Your task to perform on an android device: manage bookmarks in the chrome app Image 0: 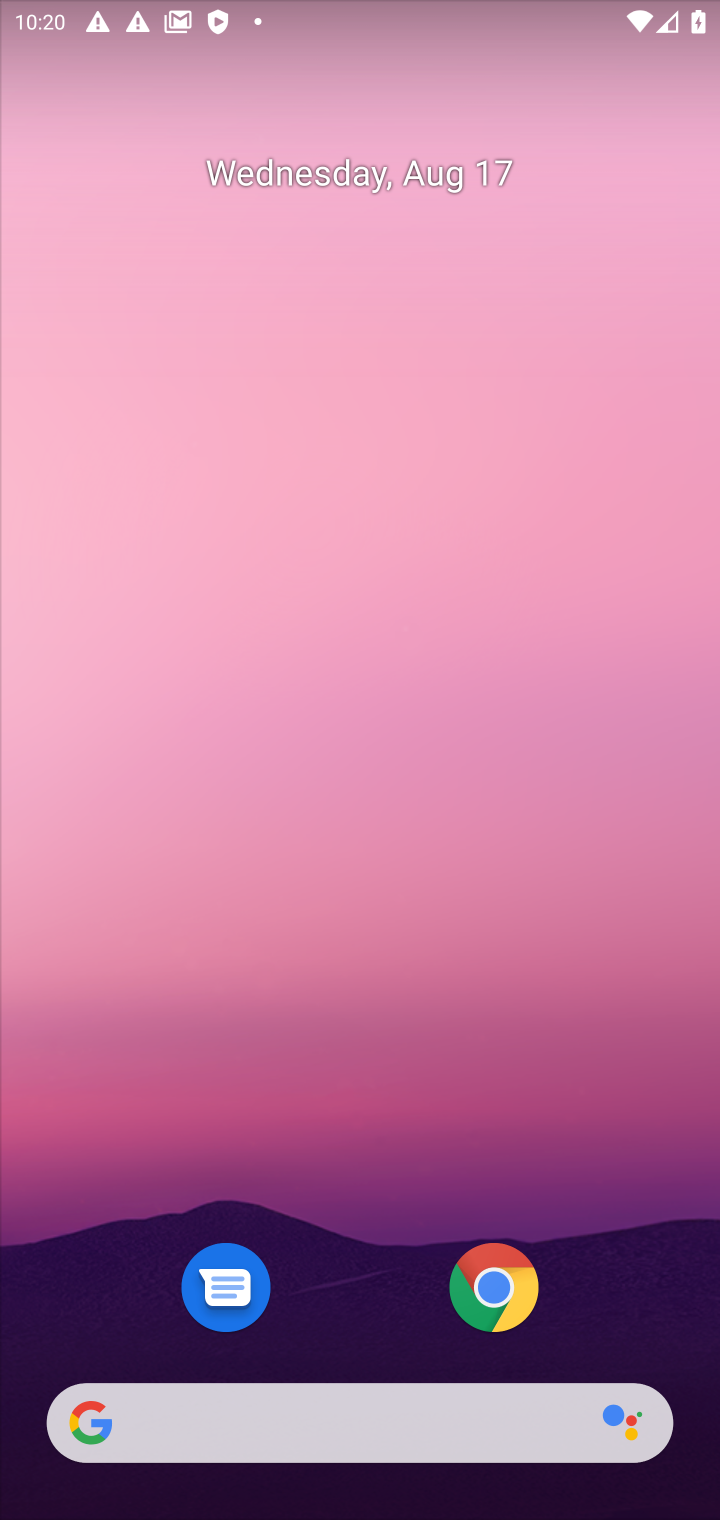
Step 0: press home button
Your task to perform on an android device: manage bookmarks in the chrome app Image 1: 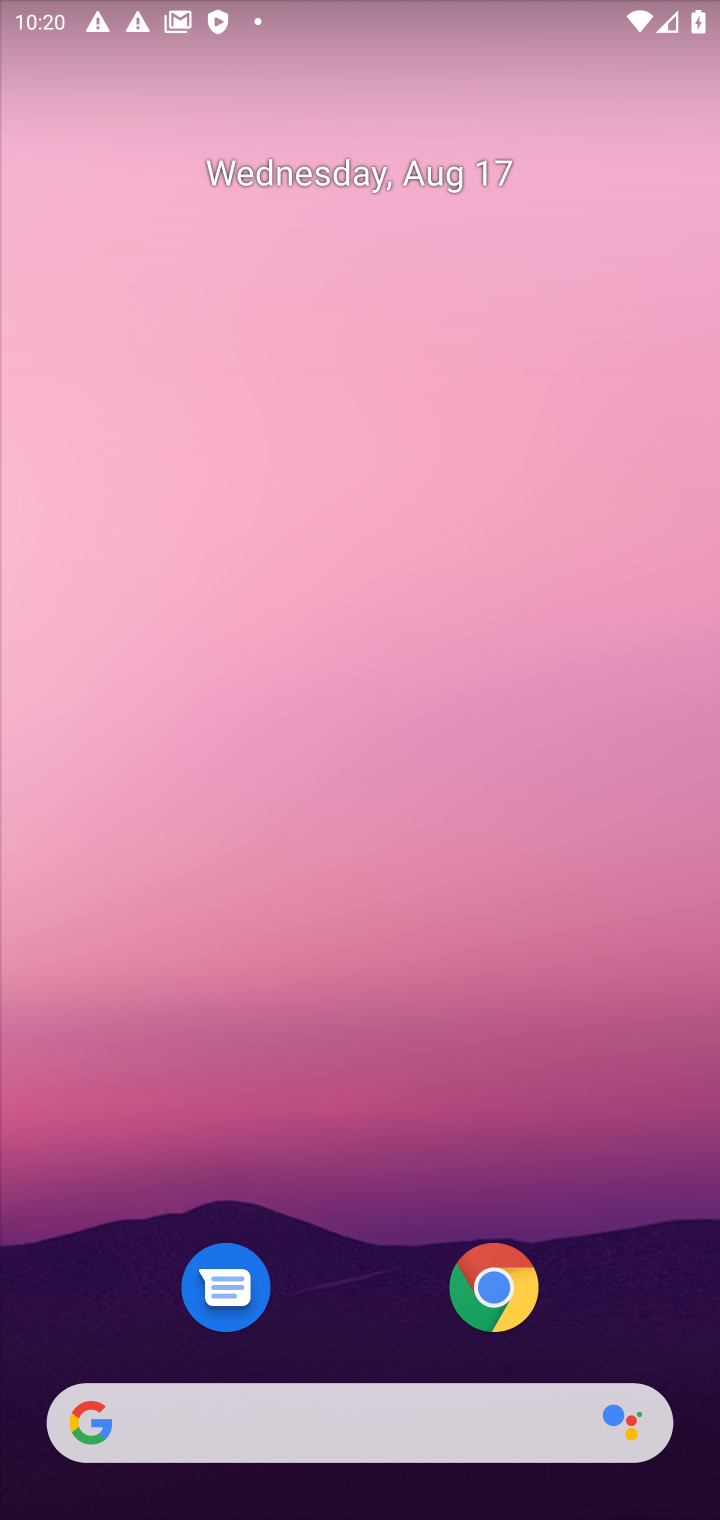
Step 1: click (486, 1266)
Your task to perform on an android device: manage bookmarks in the chrome app Image 2: 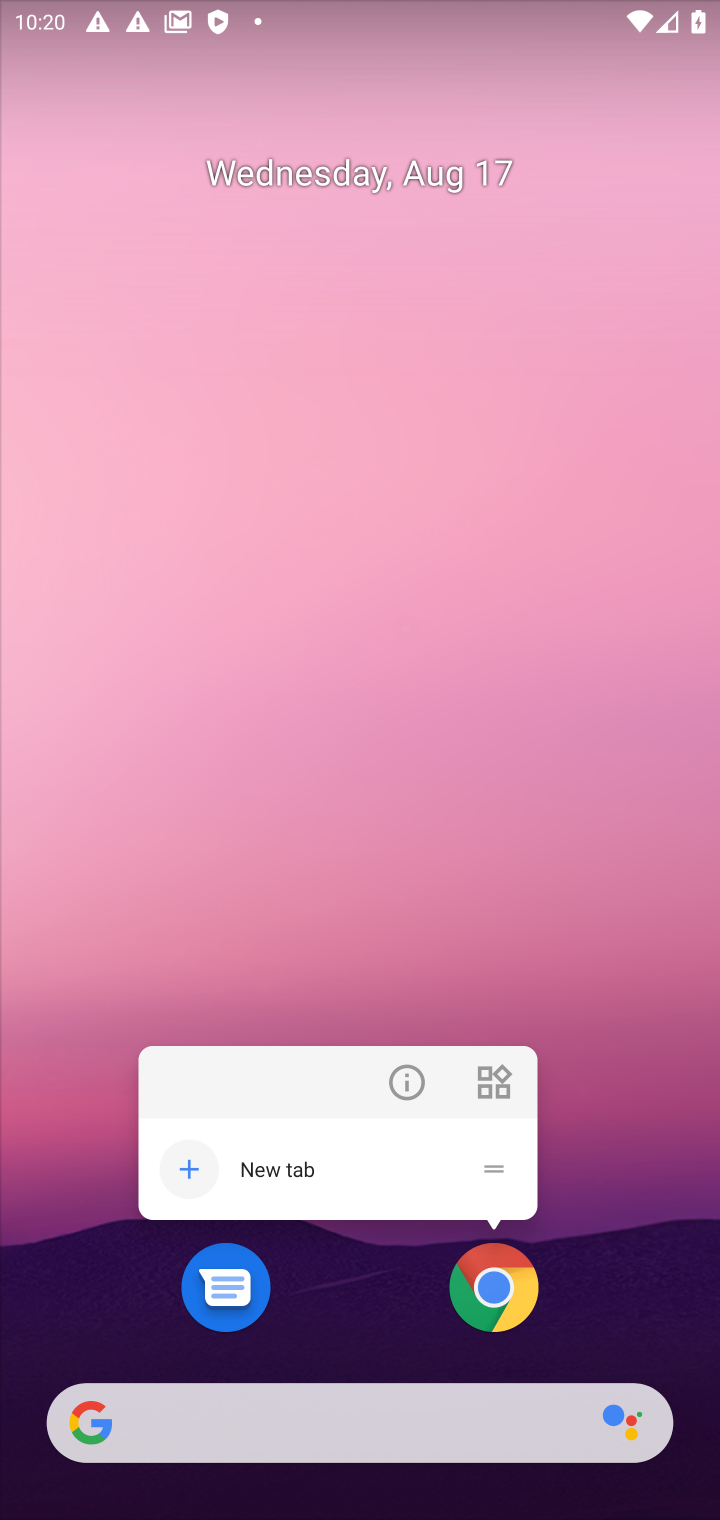
Step 2: click (512, 1319)
Your task to perform on an android device: manage bookmarks in the chrome app Image 3: 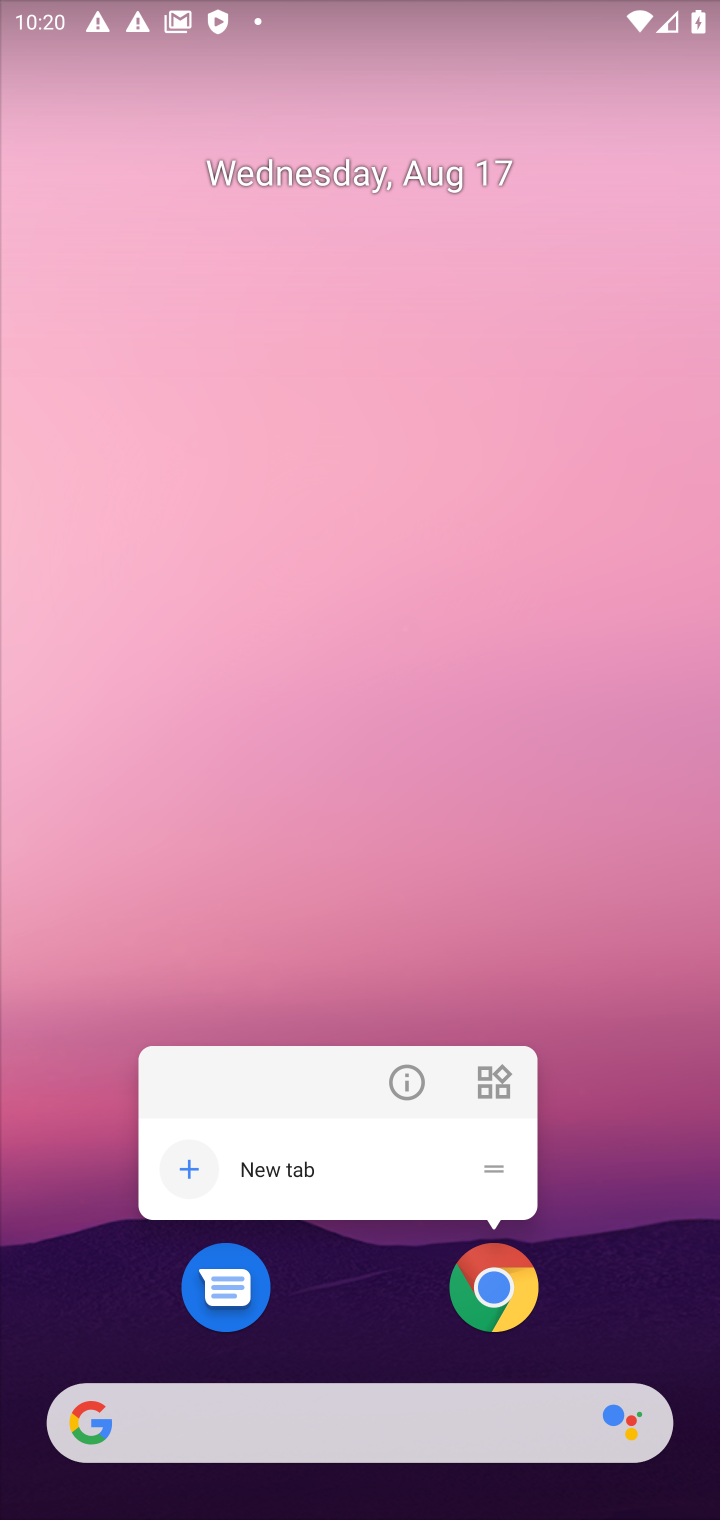
Step 3: click (500, 1301)
Your task to perform on an android device: manage bookmarks in the chrome app Image 4: 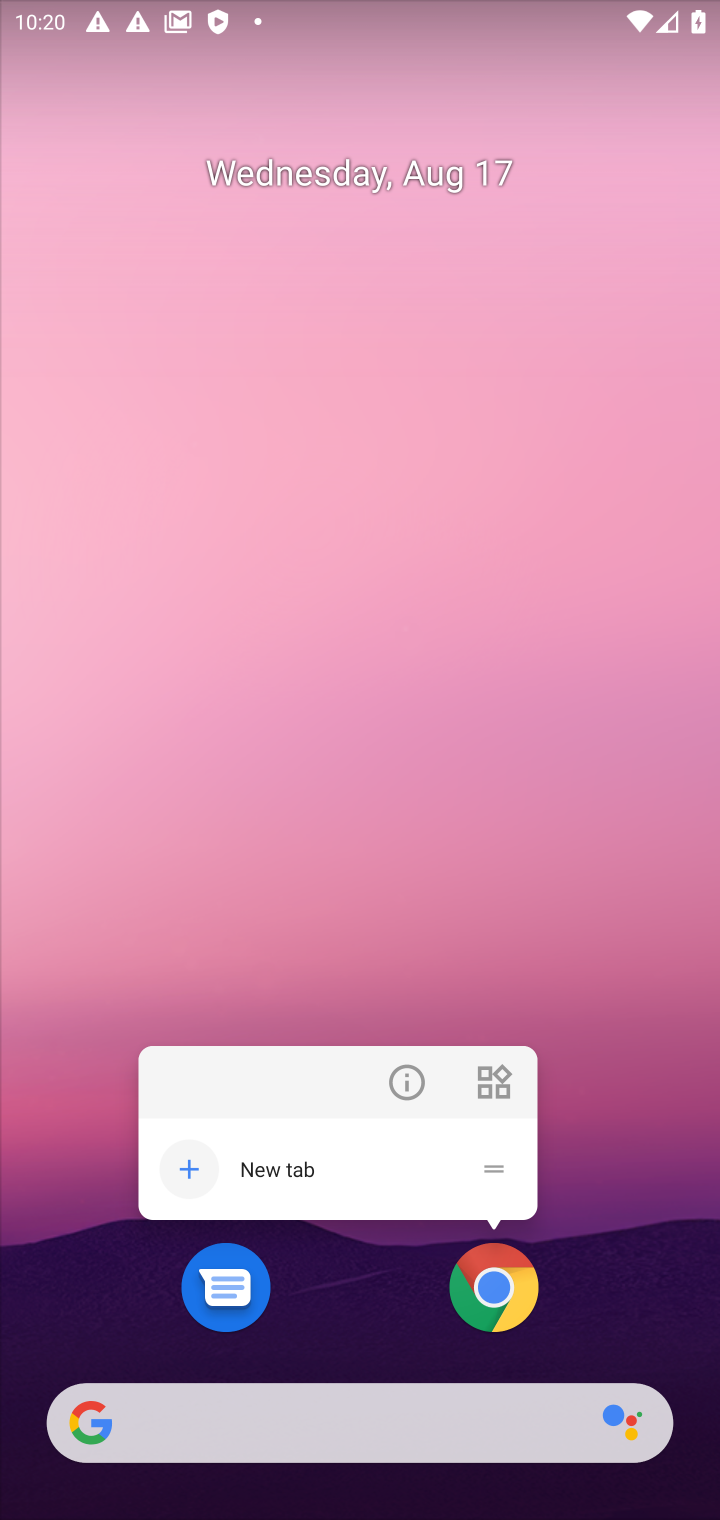
Step 4: click (503, 1301)
Your task to perform on an android device: manage bookmarks in the chrome app Image 5: 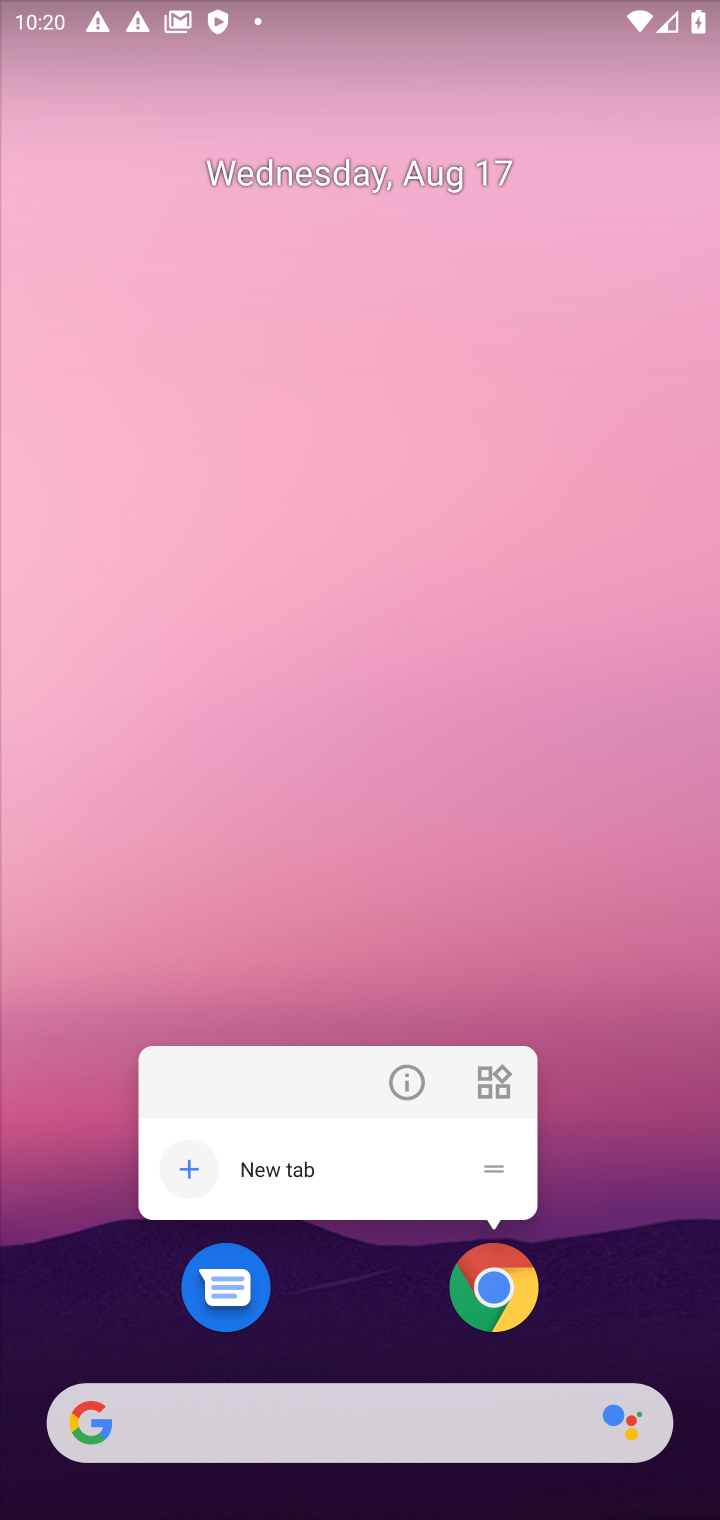
Step 5: click (505, 1283)
Your task to perform on an android device: manage bookmarks in the chrome app Image 6: 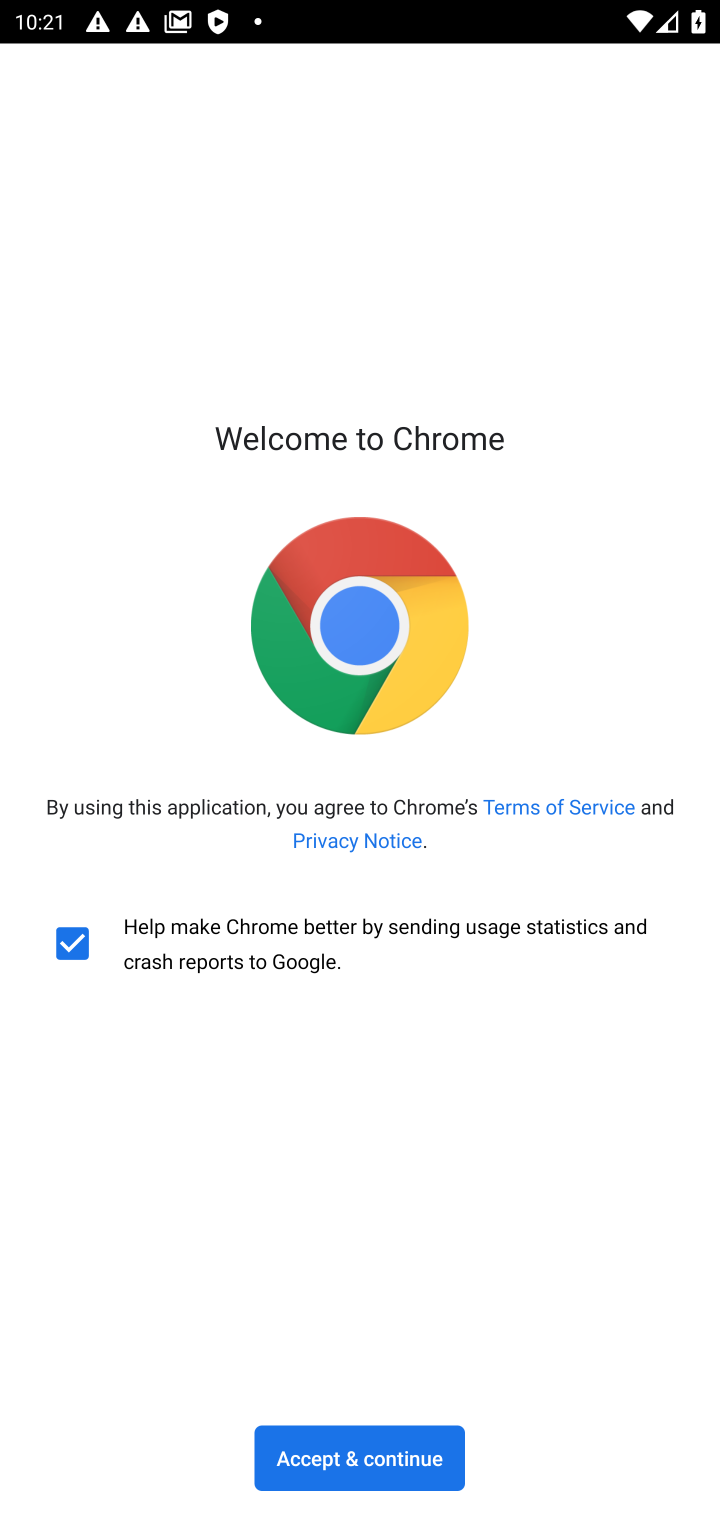
Step 6: click (365, 1457)
Your task to perform on an android device: manage bookmarks in the chrome app Image 7: 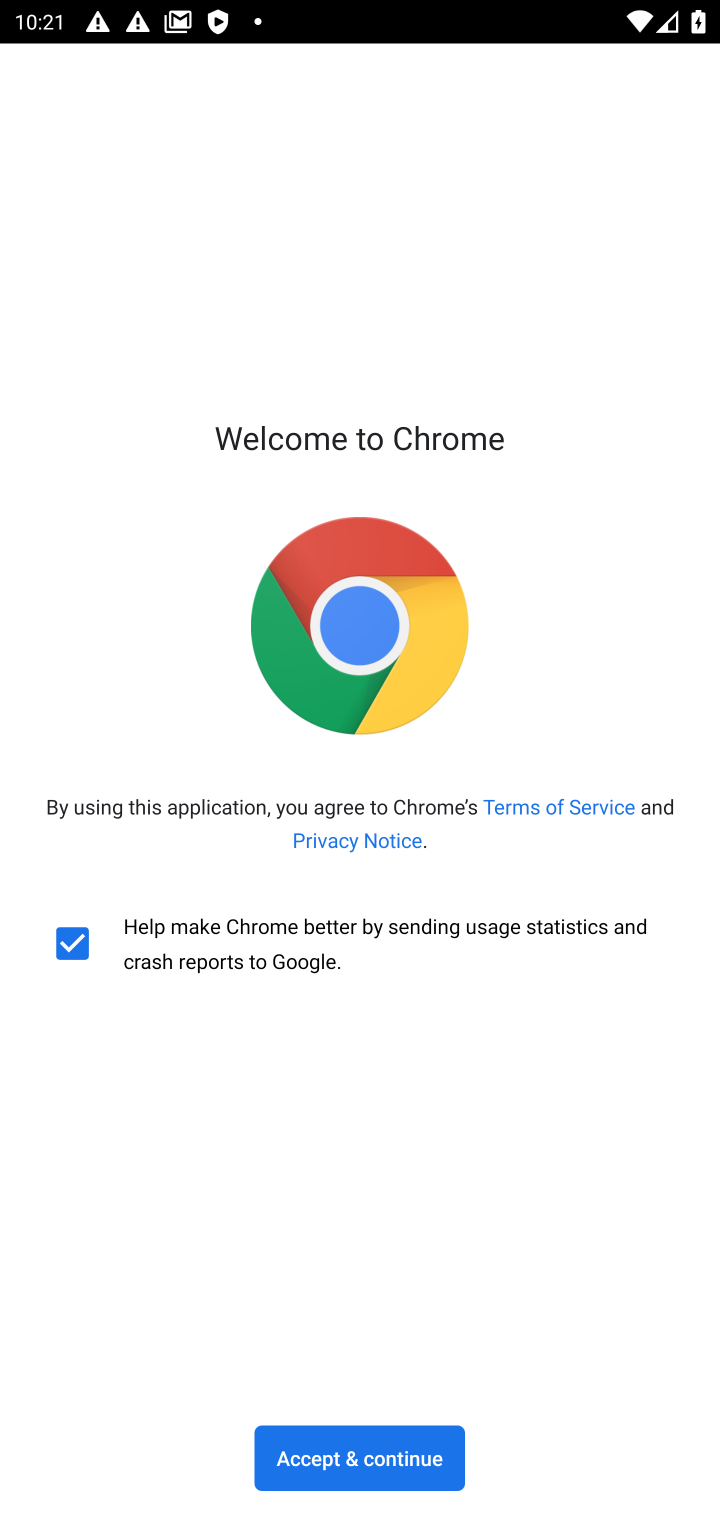
Step 7: click (365, 1457)
Your task to perform on an android device: manage bookmarks in the chrome app Image 8: 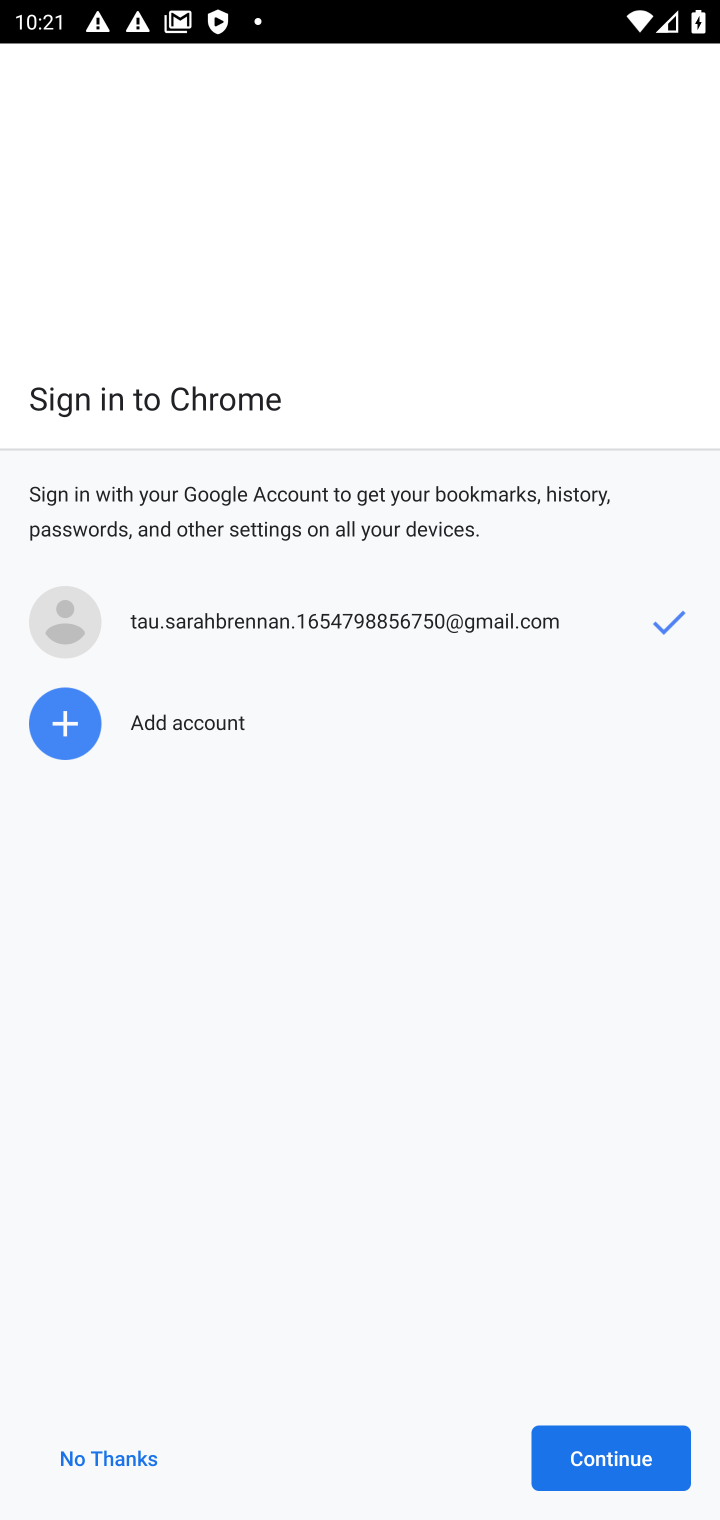
Step 8: click (621, 1449)
Your task to perform on an android device: manage bookmarks in the chrome app Image 9: 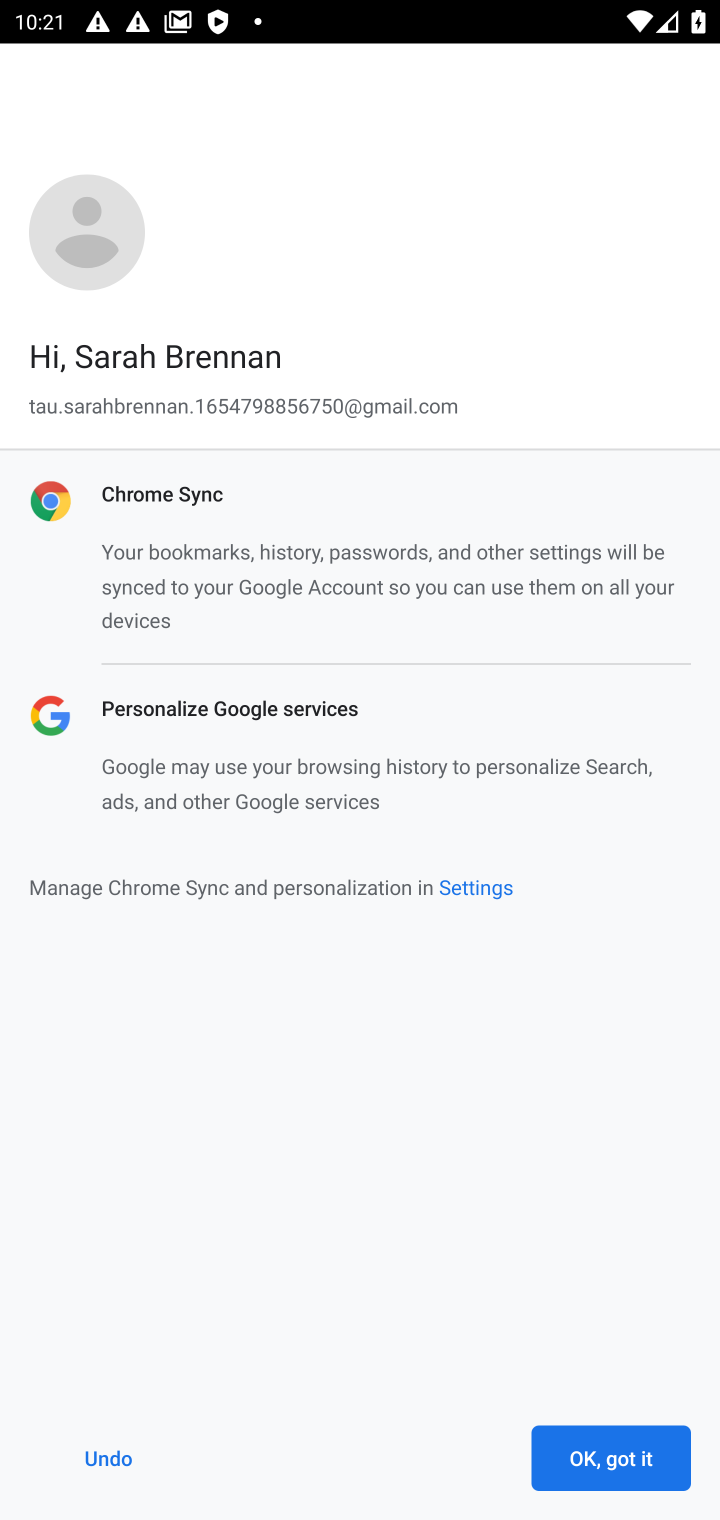
Step 9: click (633, 1466)
Your task to perform on an android device: manage bookmarks in the chrome app Image 10: 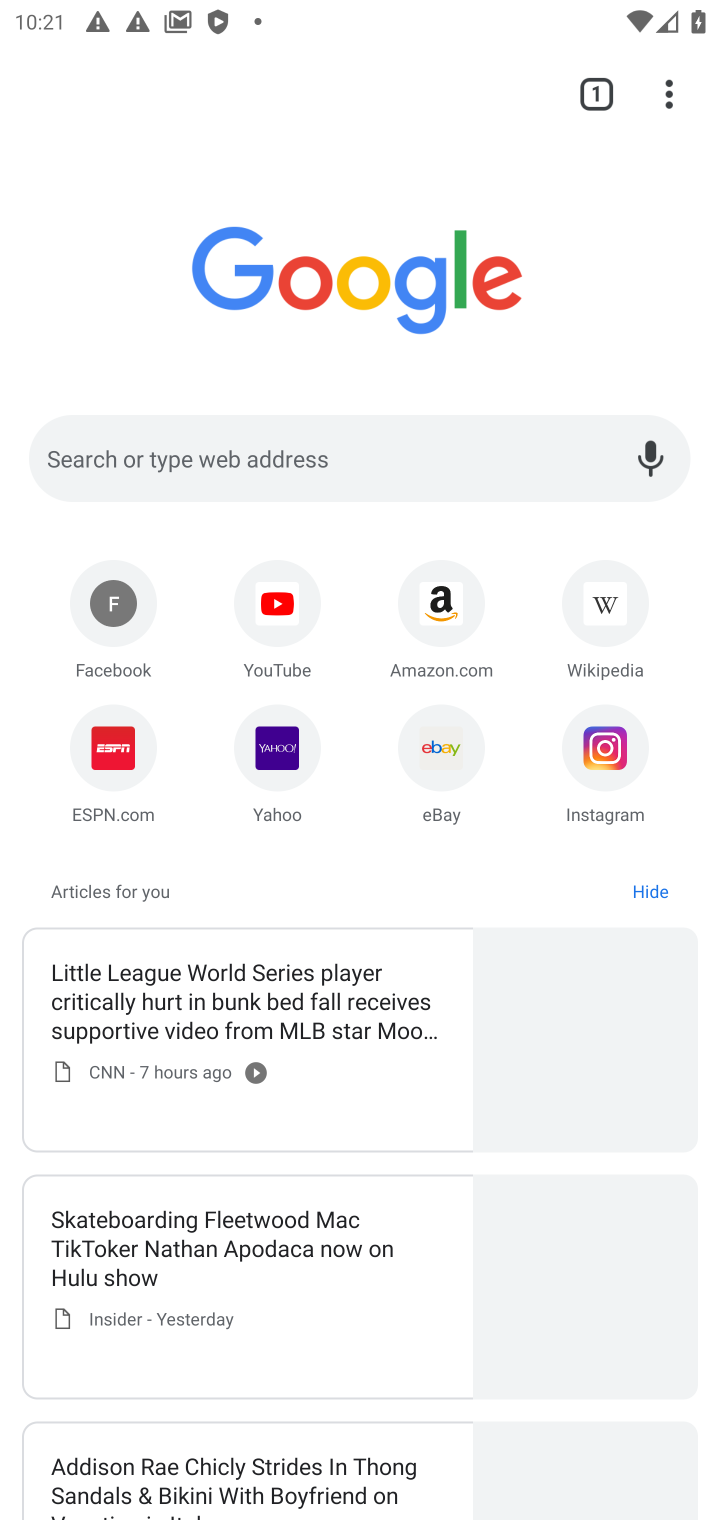
Step 10: task complete